Your task to perform on an android device: toggle data saver in the chrome app Image 0: 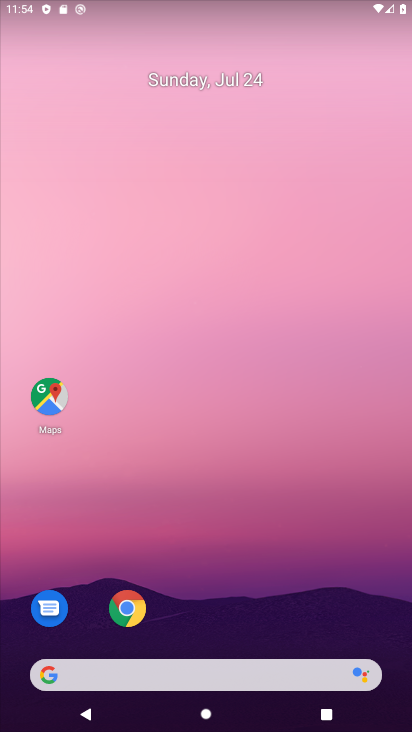
Step 0: click (117, 609)
Your task to perform on an android device: toggle data saver in the chrome app Image 1: 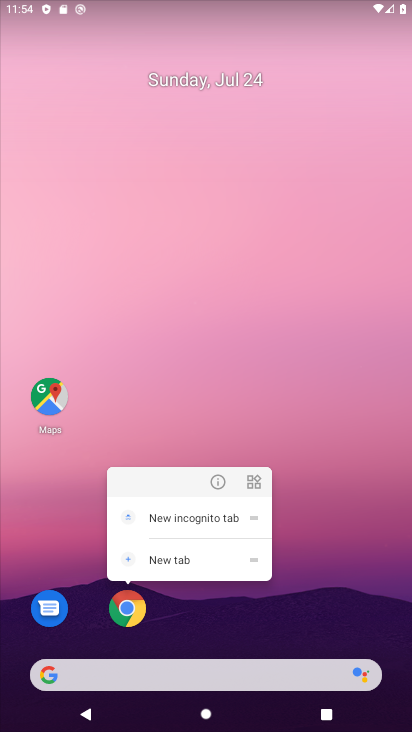
Step 1: click (124, 606)
Your task to perform on an android device: toggle data saver in the chrome app Image 2: 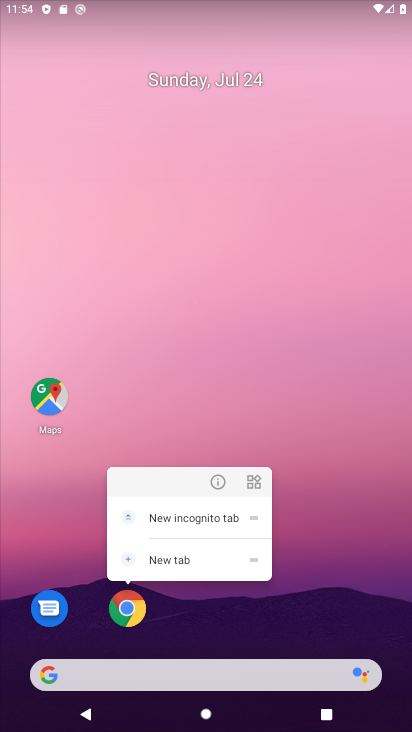
Step 2: click (138, 611)
Your task to perform on an android device: toggle data saver in the chrome app Image 3: 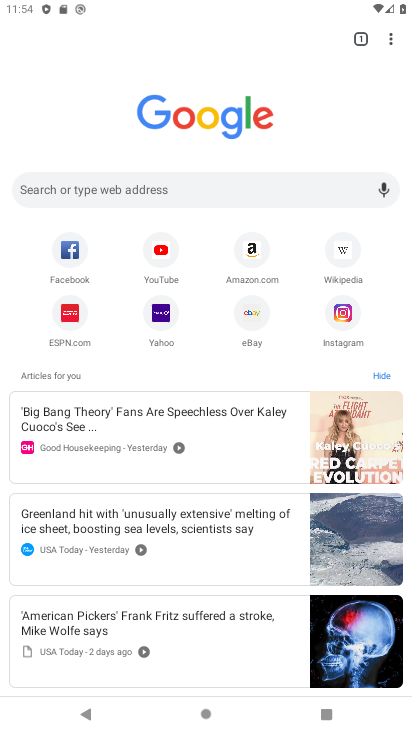
Step 3: click (394, 31)
Your task to perform on an android device: toggle data saver in the chrome app Image 4: 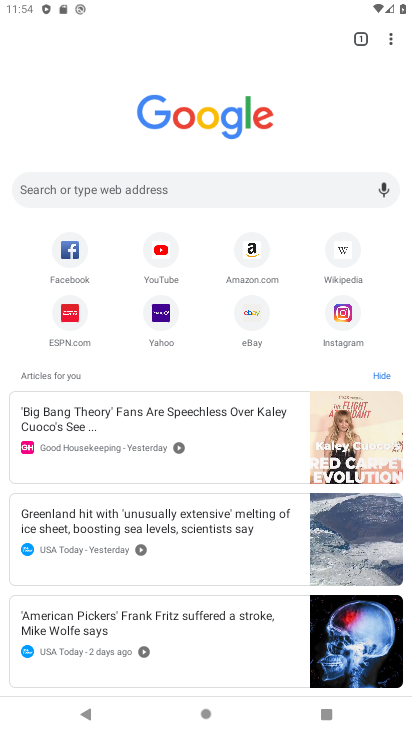
Step 4: click (395, 35)
Your task to perform on an android device: toggle data saver in the chrome app Image 5: 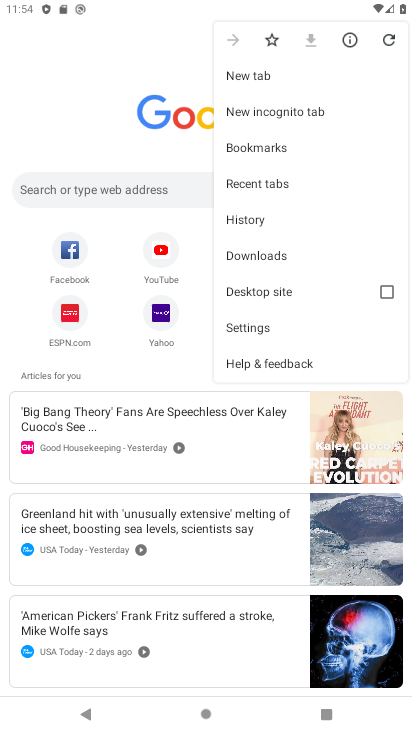
Step 5: click (265, 324)
Your task to perform on an android device: toggle data saver in the chrome app Image 6: 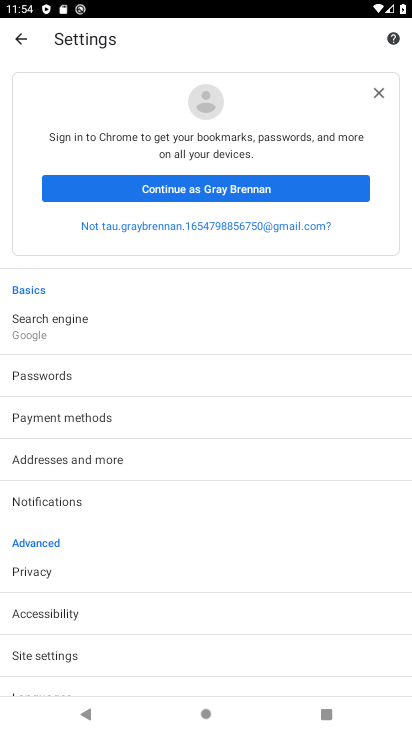
Step 6: drag from (25, 407) to (99, 224)
Your task to perform on an android device: toggle data saver in the chrome app Image 7: 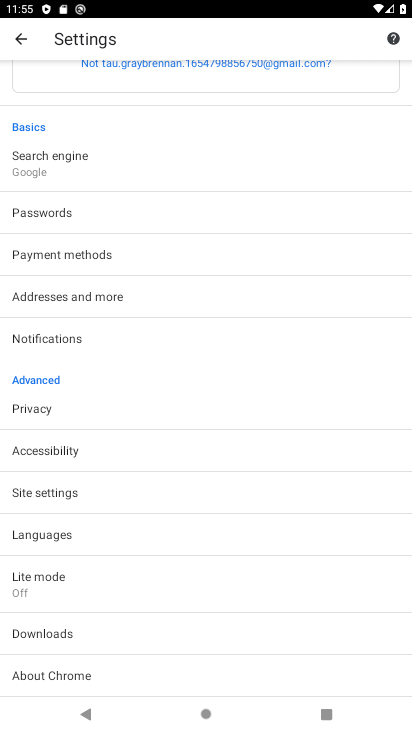
Step 7: click (83, 491)
Your task to perform on an android device: toggle data saver in the chrome app Image 8: 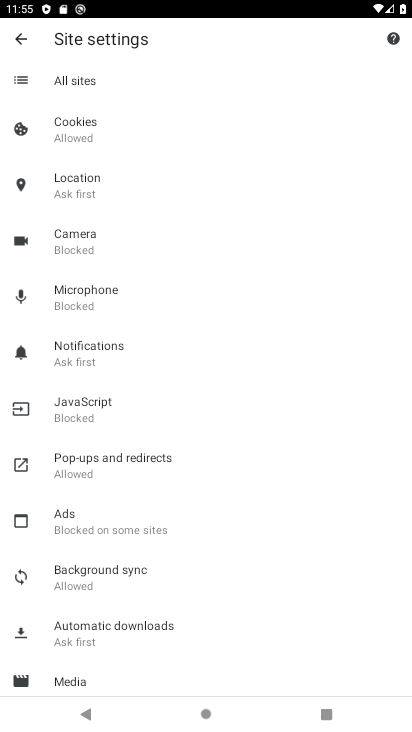
Step 8: drag from (7, 554) to (155, 175)
Your task to perform on an android device: toggle data saver in the chrome app Image 9: 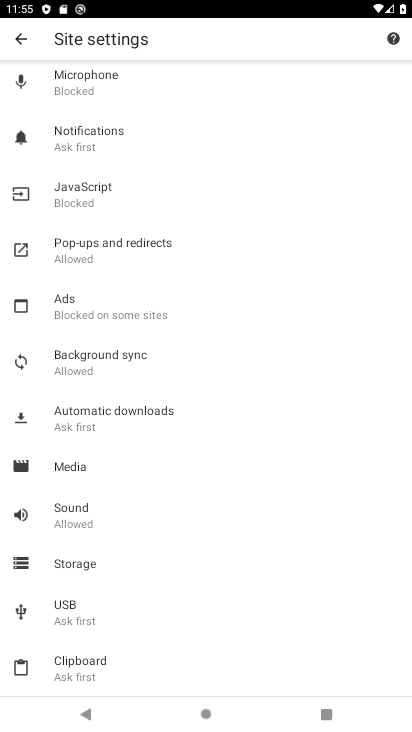
Step 9: press back button
Your task to perform on an android device: toggle data saver in the chrome app Image 10: 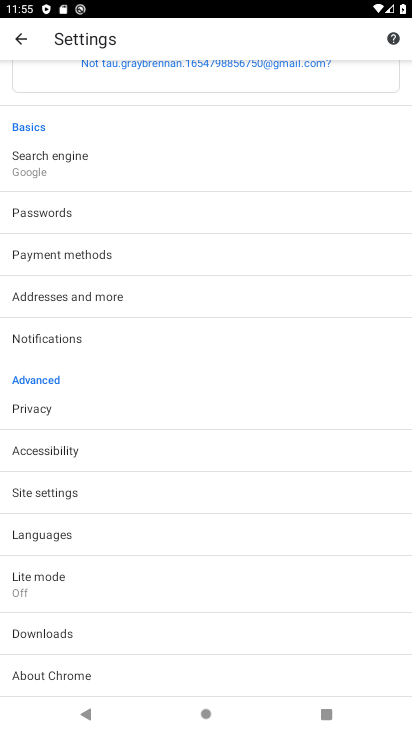
Step 10: drag from (42, 658) to (146, 127)
Your task to perform on an android device: toggle data saver in the chrome app Image 11: 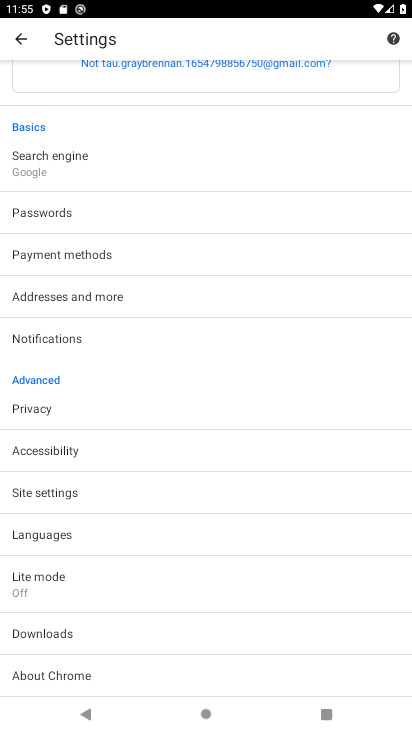
Step 11: drag from (9, 714) to (235, 107)
Your task to perform on an android device: toggle data saver in the chrome app Image 12: 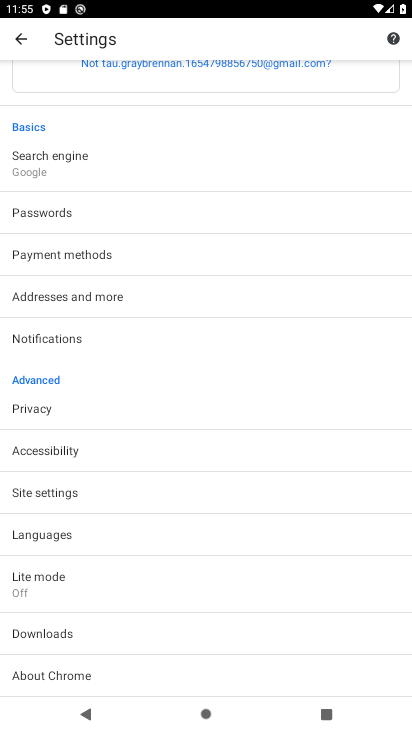
Step 12: click (33, 590)
Your task to perform on an android device: toggle data saver in the chrome app Image 13: 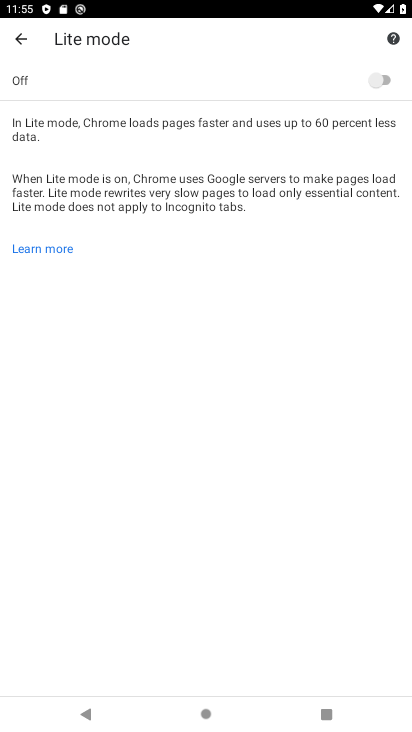
Step 13: click (377, 77)
Your task to perform on an android device: toggle data saver in the chrome app Image 14: 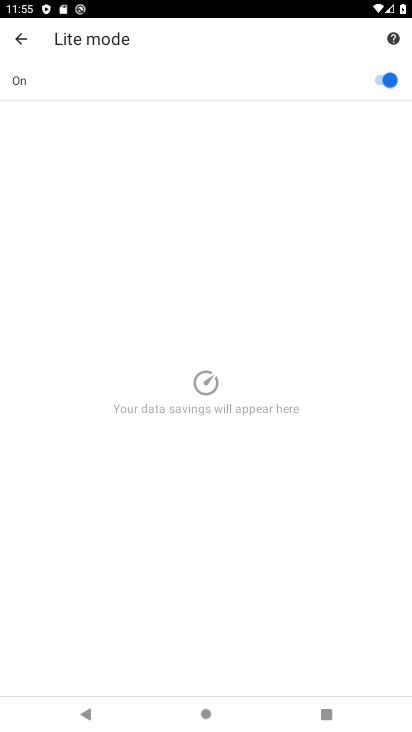
Step 14: task complete